Your task to perform on an android device: check out phone information Image 0: 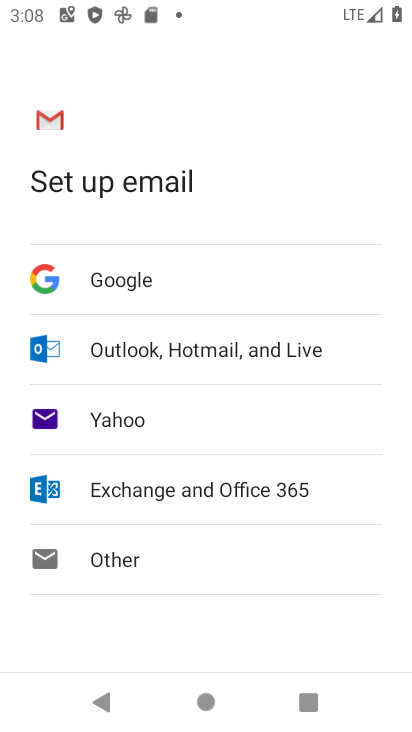
Step 0: press home button
Your task to perform on an android device: check out phone information Image 1: 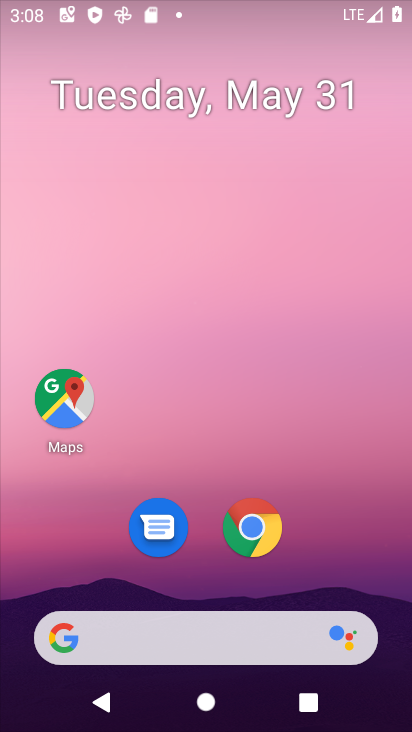
Step 1: drag from (383, 495) to (329, 42)
Your task to perform on an android device: check out phone information Image 2: 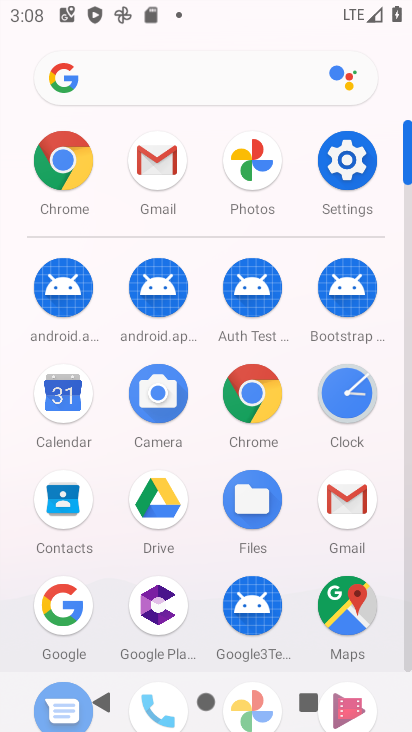
Step 2: click (343, 166)
Your task to perform on an android device: check out phone information Image 3: 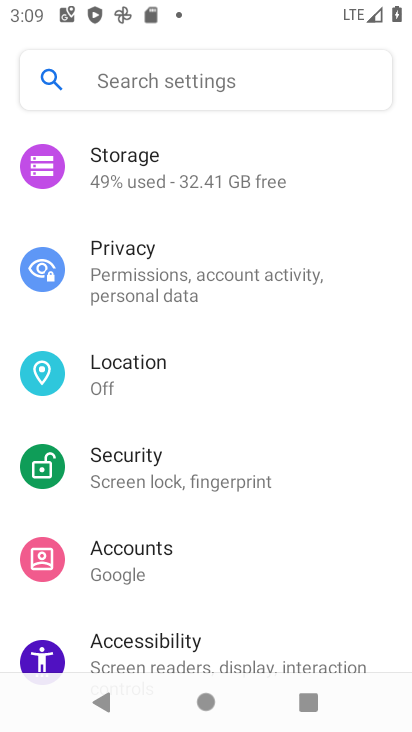
Step 3: drag from (260, 591) to (241, 132)
Your task to perform on an android device: check out phone information Image 4: 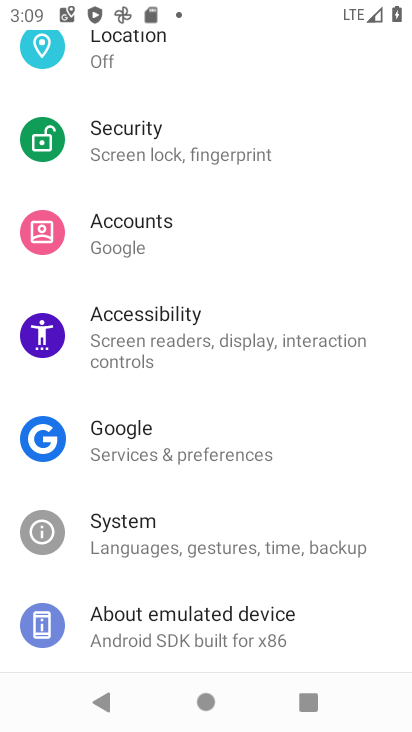
Step 4: drag from (247, 623) to (272, 268)
Your task to perform on an android device: check out phone information Image 5: 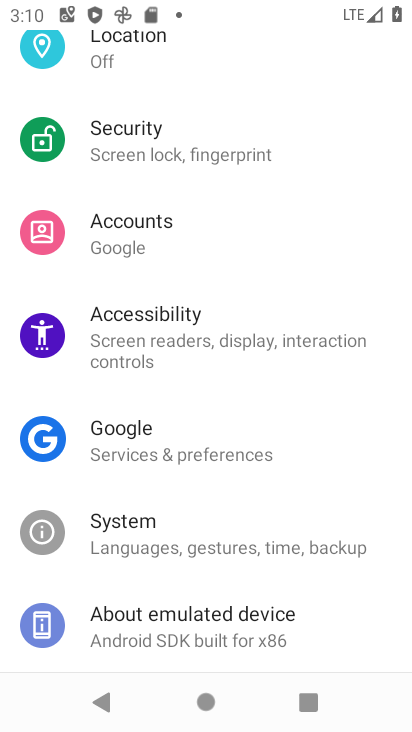
Step 5: click (187, 634)
Your task to perform on an android device: check out phone information Image 6: 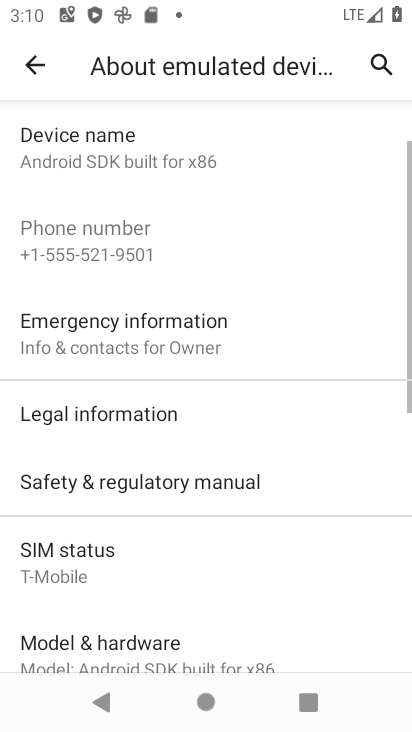
Step 6: task complete